Your task to perform on an android device: Open calendar and show me the fourth week of next month Image 0: 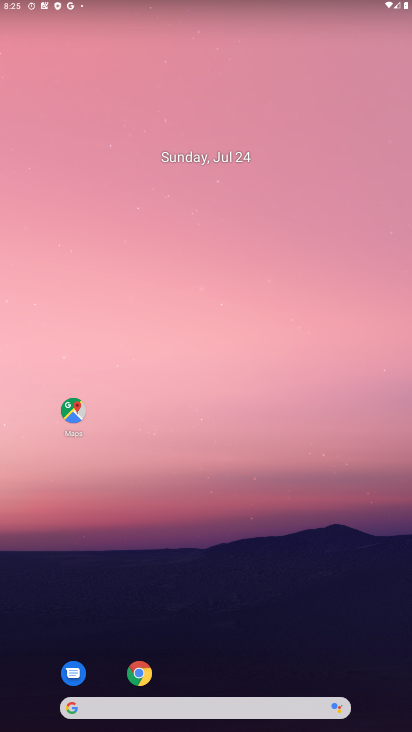
Step 0: drag from (46, 665) to (239, 102)
Your task to perform on an android device: Open calendar and show me the fourth week of next month Image 1: 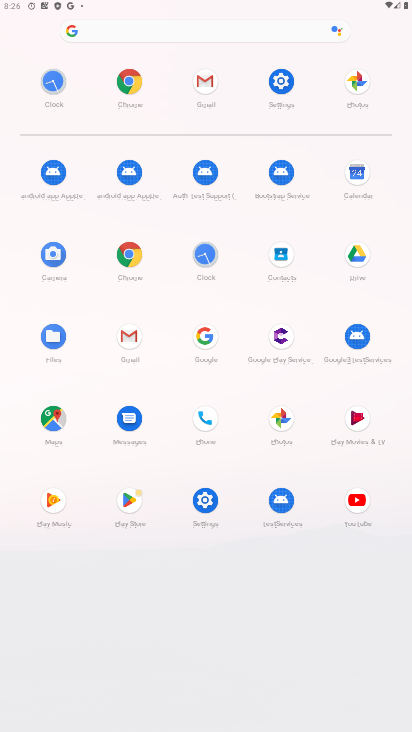
Step 1: click (355, 173)
Your task to perform on an android device: Open calendar and show me the fourth week of next month Image 2: 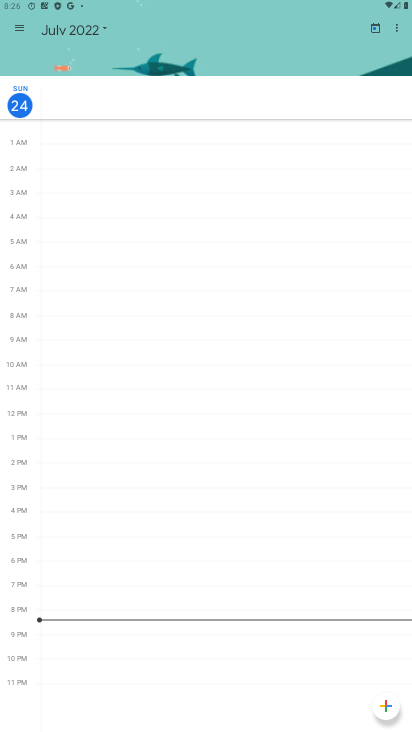
Step 2: click (16, 25)
Your task to perform on an android device: Open calendar and show me the fourth week of next month Image 3: 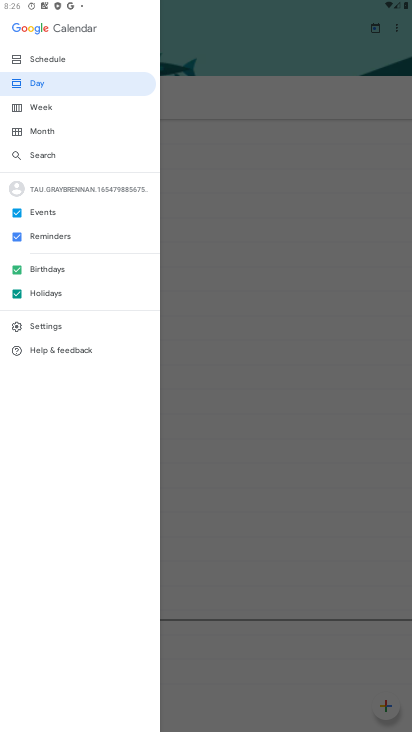
Step 3: click (49, 63)
Your task to perform on an android device: Open calendar and show me the fourth week of next month Image 4: 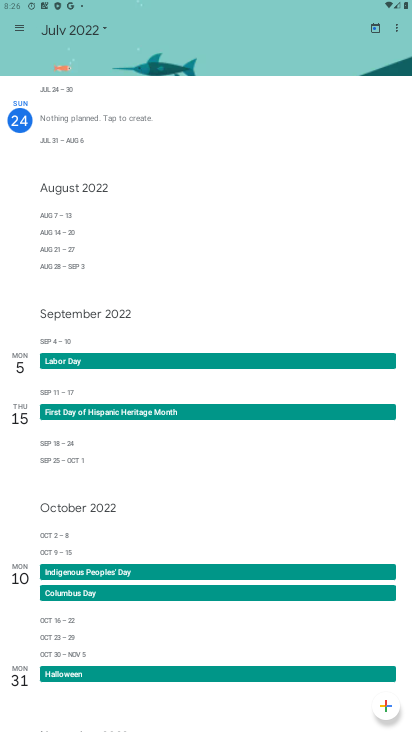
Step 4: click (18, 28)
Your task to perform on an android device: Open calendar and show me the fourth week of next month Image 5: 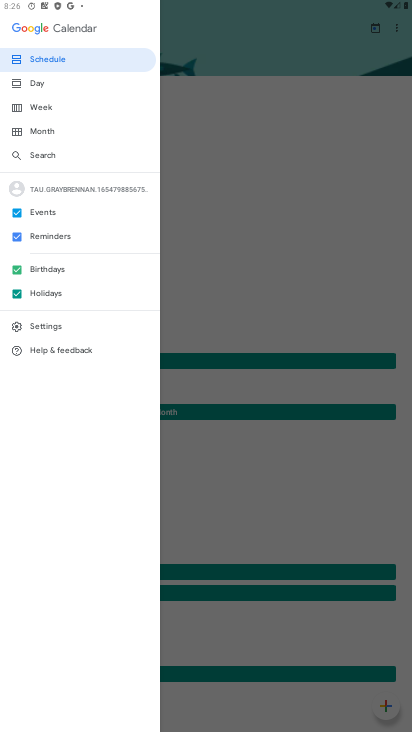
Step 5: click (181, 33)
Your task to perform on an android device: Open calendar and show me the fourth week of next month Image 6: 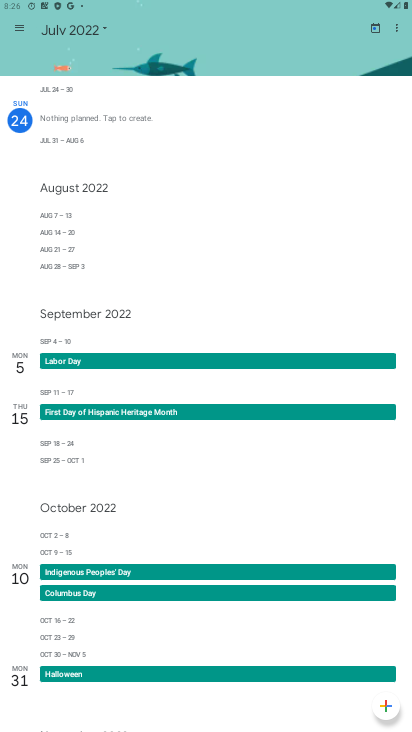
Step 6: click (90, 36)
Your task to perform on an android device: Open calendar and show me the fourth week of next month Image 7: 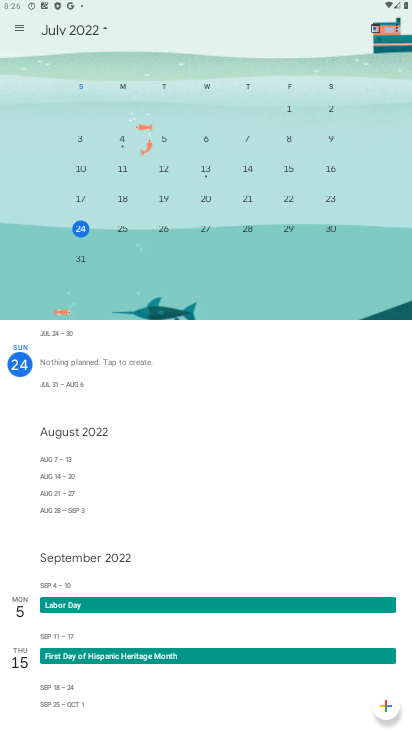
Step 7: drag from (335, 157) to (3, 337)
Your task to perform on an android device: Open calendar and show me the fourth week of next month Image 8: 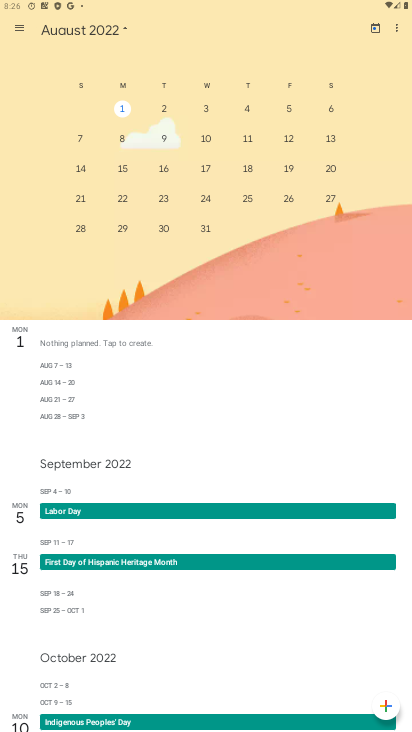
Step 8: click (123, 198)
Your task to perform on an android device: Open calendar and show me the fourth week of next month Image 9: 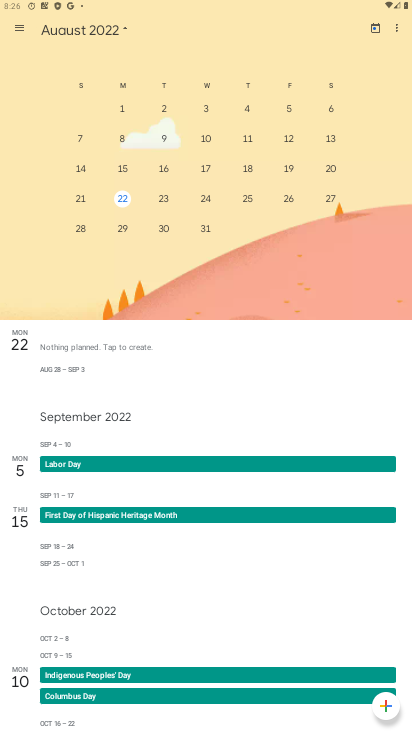
Step 9: task complete